Your task to perform on an android device: Go to ESPN.com Image 0: 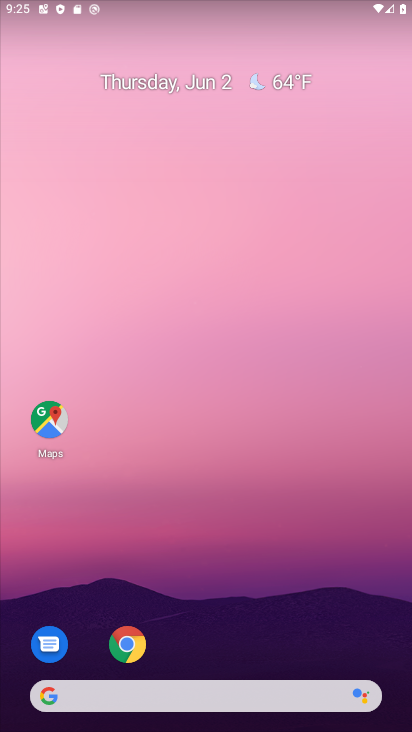
Step 0: press home button
Your task to perform on an android device: Go to ESPN.com Image 1: 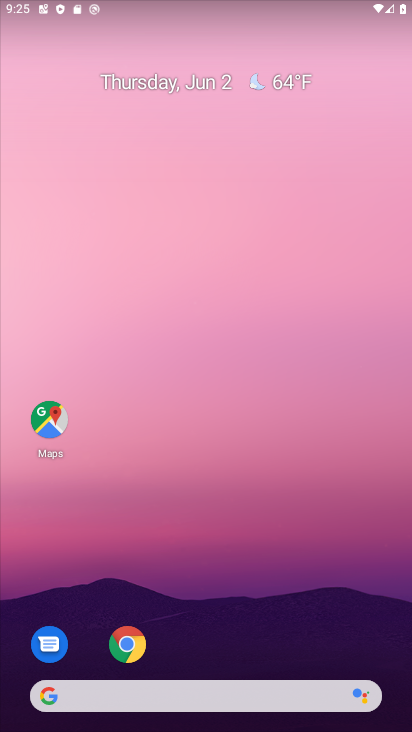
Step 1: click (124, 656)
Your task to perform on an android device: Go to ESPN.com Image 2: 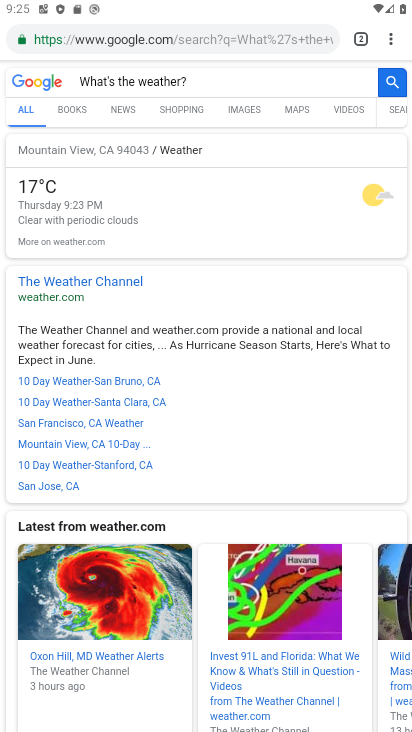
Step 2: click (309, 33)
Your task to perform on an android device: Go to ESPN.com Image 3: 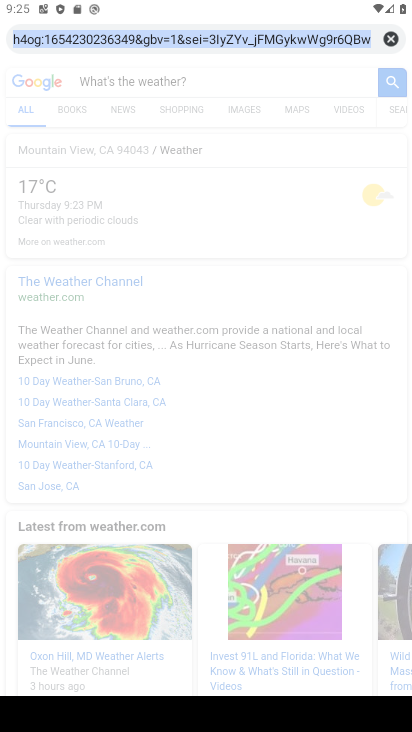
Step 3: click (388, 34)
Your task to perform on an android device: Go to ESPN.com Image 4: 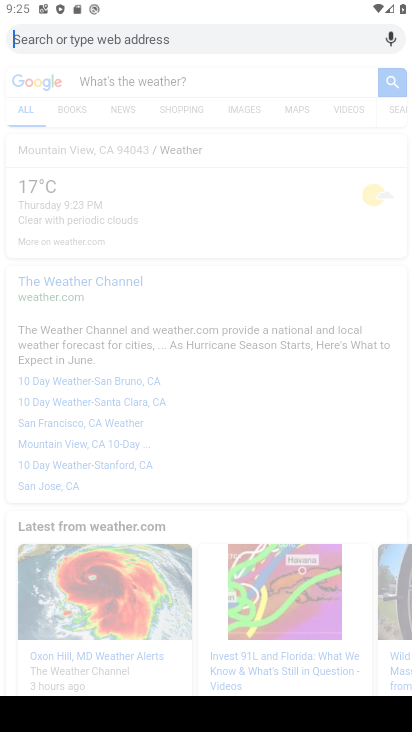
Step 4: type "ESPN.com"
Your task to perform on an android device: Go to ESPN.com Image 5: 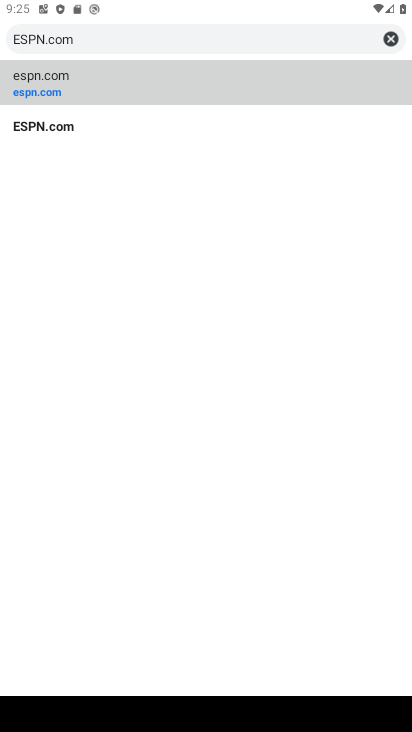
Step 5: click (267, 73)
Your task to perform on an android device: Go to ESPN.com Image 6: 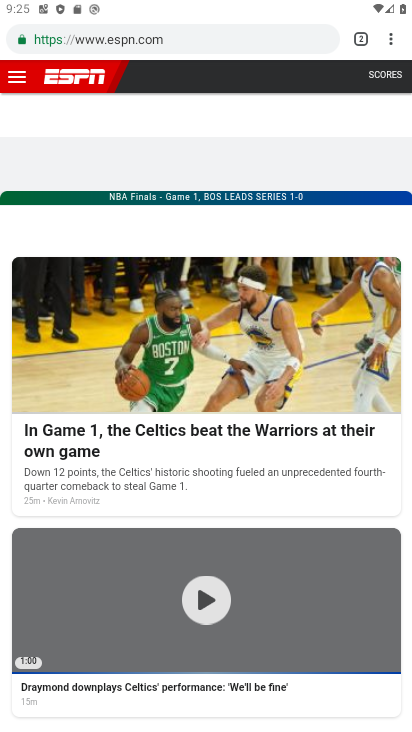
Step 6: task complete